Your task to perform on an android device: open chrome and create a bookmark for the current page Image 0: 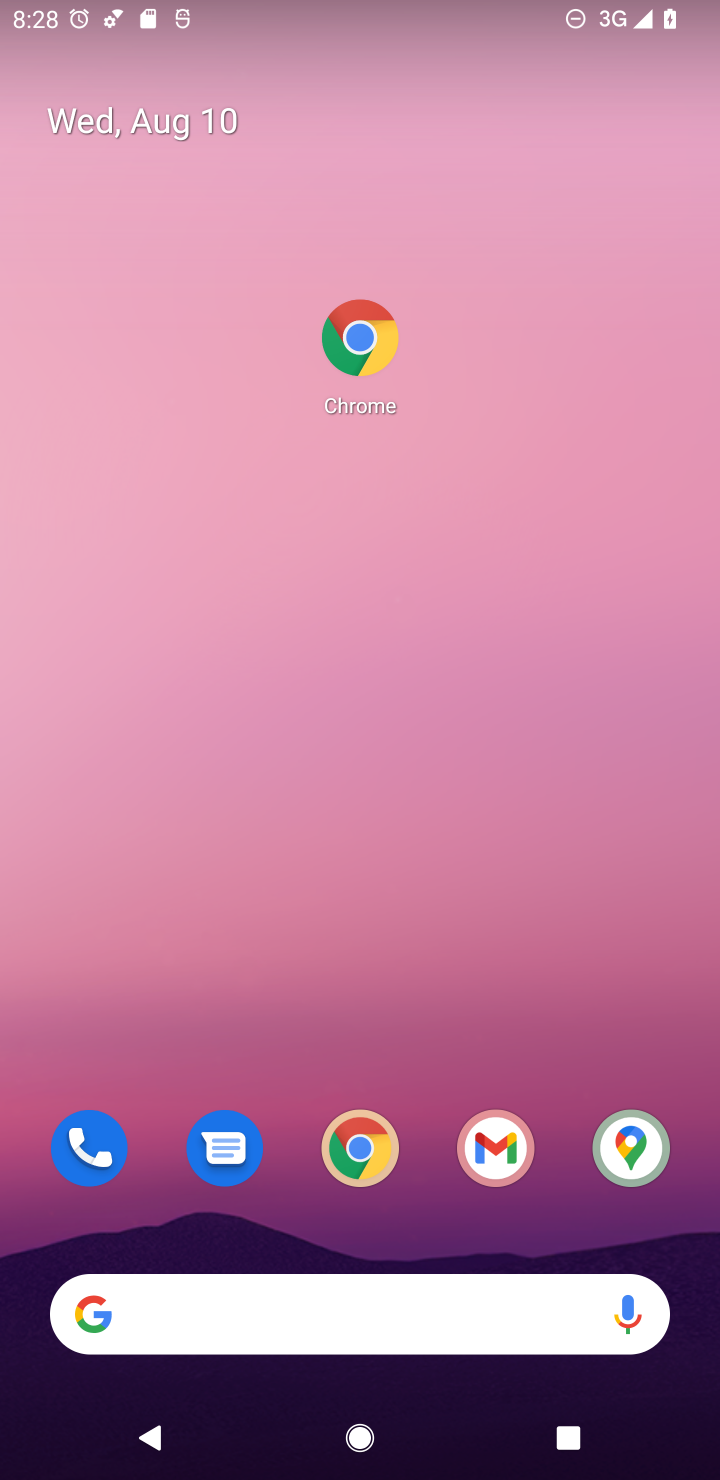
Step 0: click (354, 323)
Your task to perform on an android device: open chrome and create a bookmark for the current page Image 1: 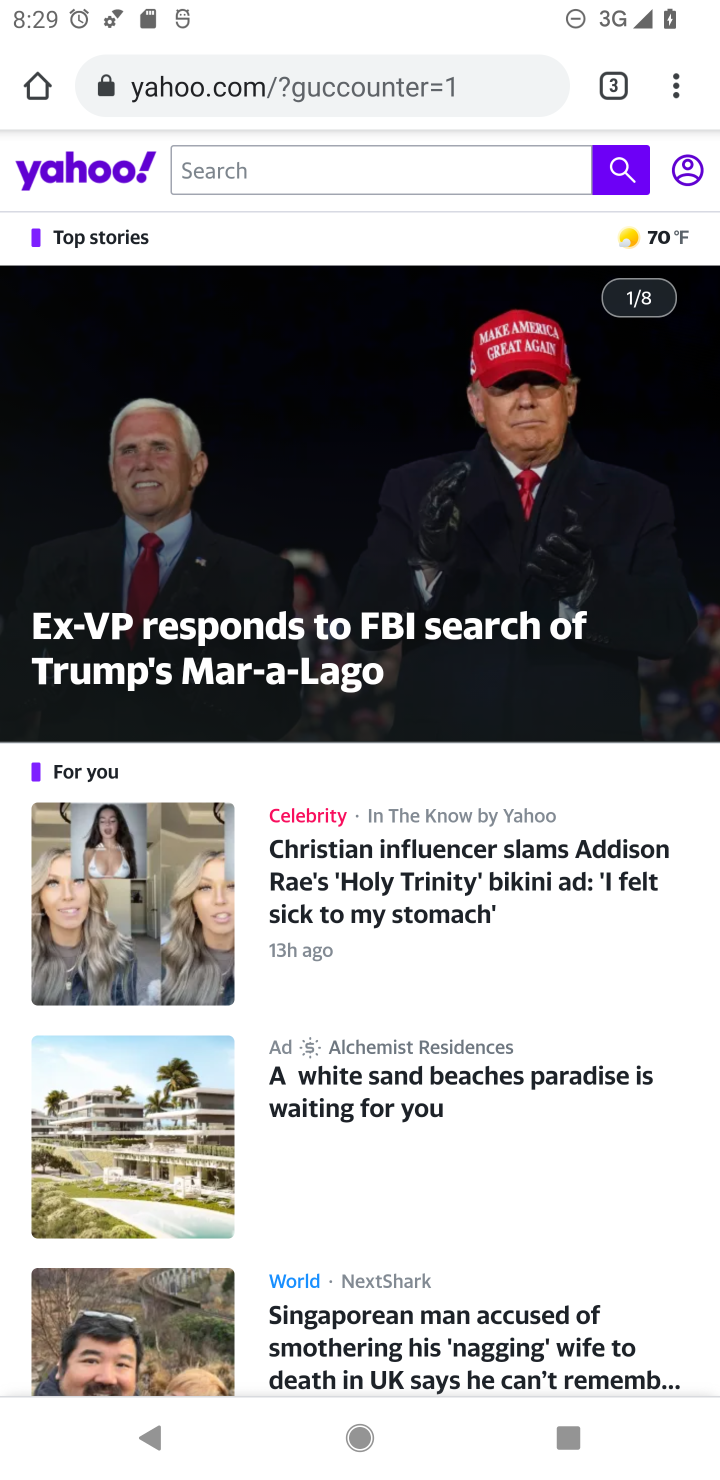
Step 1: click (661, 79)
Your task to perform on an android device: open chrome and create a bookmark for the current page Image 2: 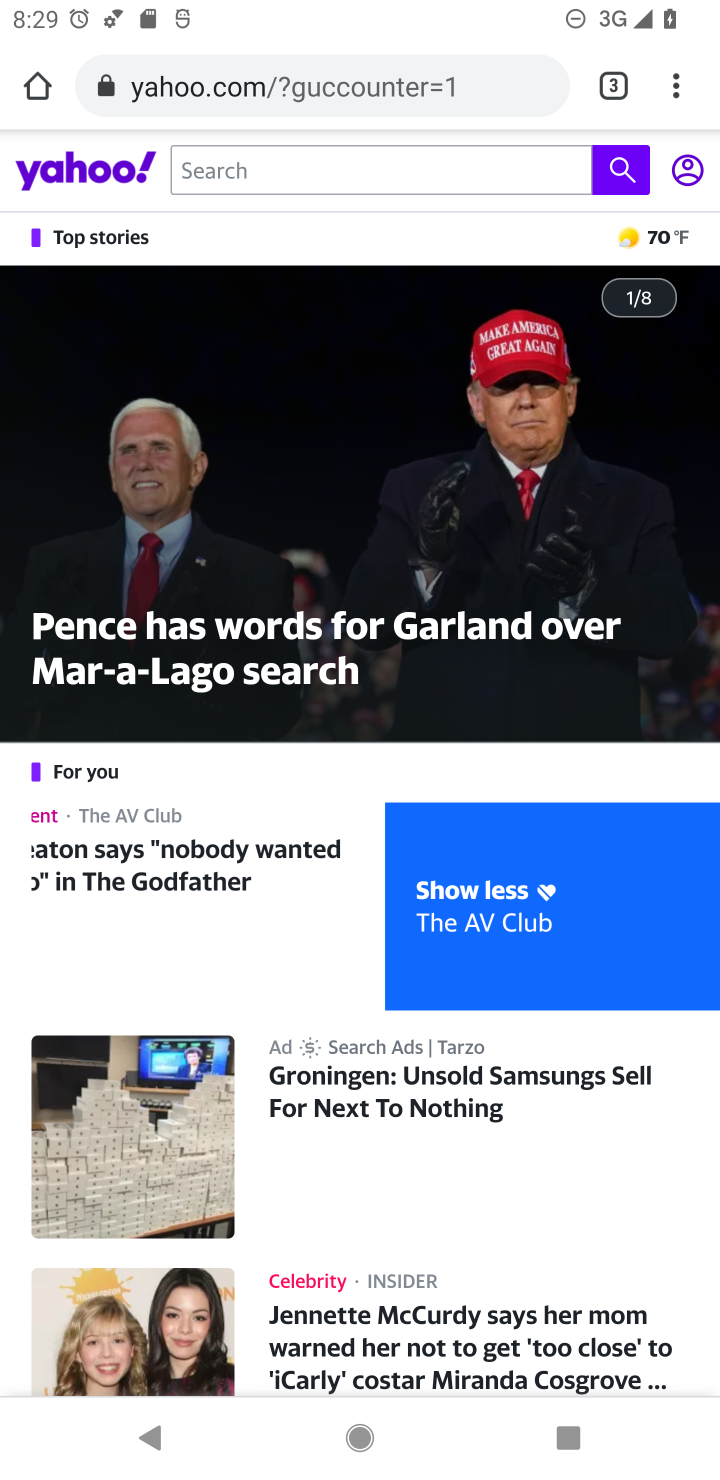
Step 2: click (676, 79)
Your task to perform on an android device: open chrome and create a bookmark for the current page Image 3: 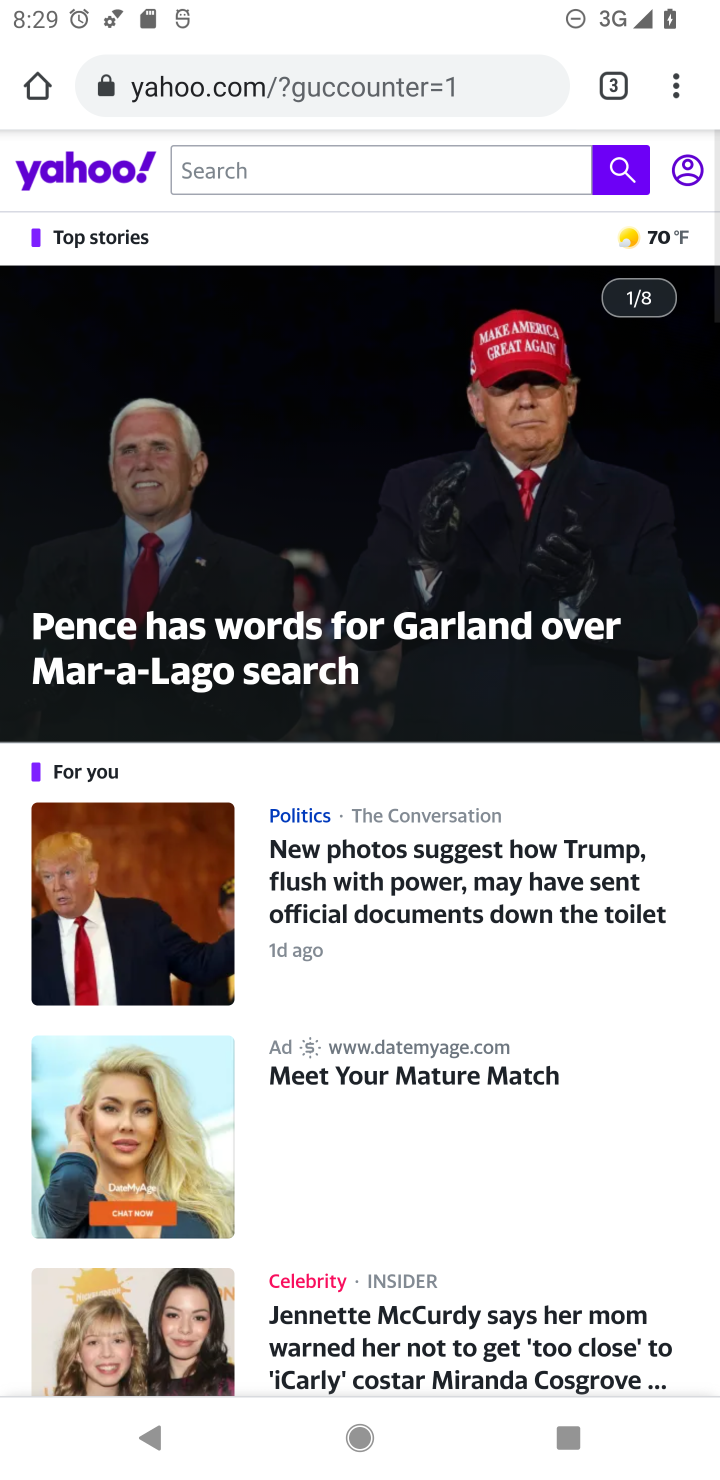
Step 3: click (676, 79)
Your task to perform on an android device: open chrome and create a bookmark for the current page Image 4: 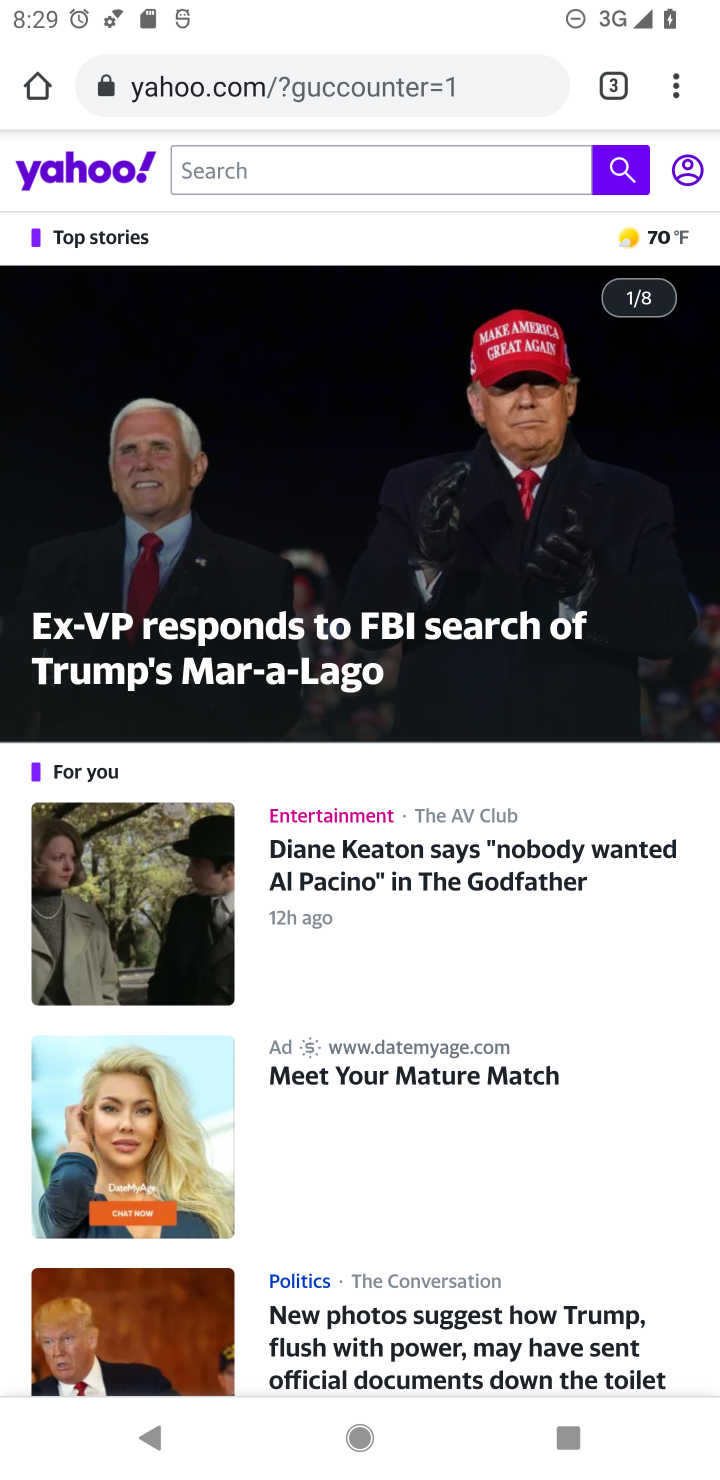
Step 4: click (676, 79)
Your task to perform on an android device: open chrome and create a bookmark for the current page Image 5: 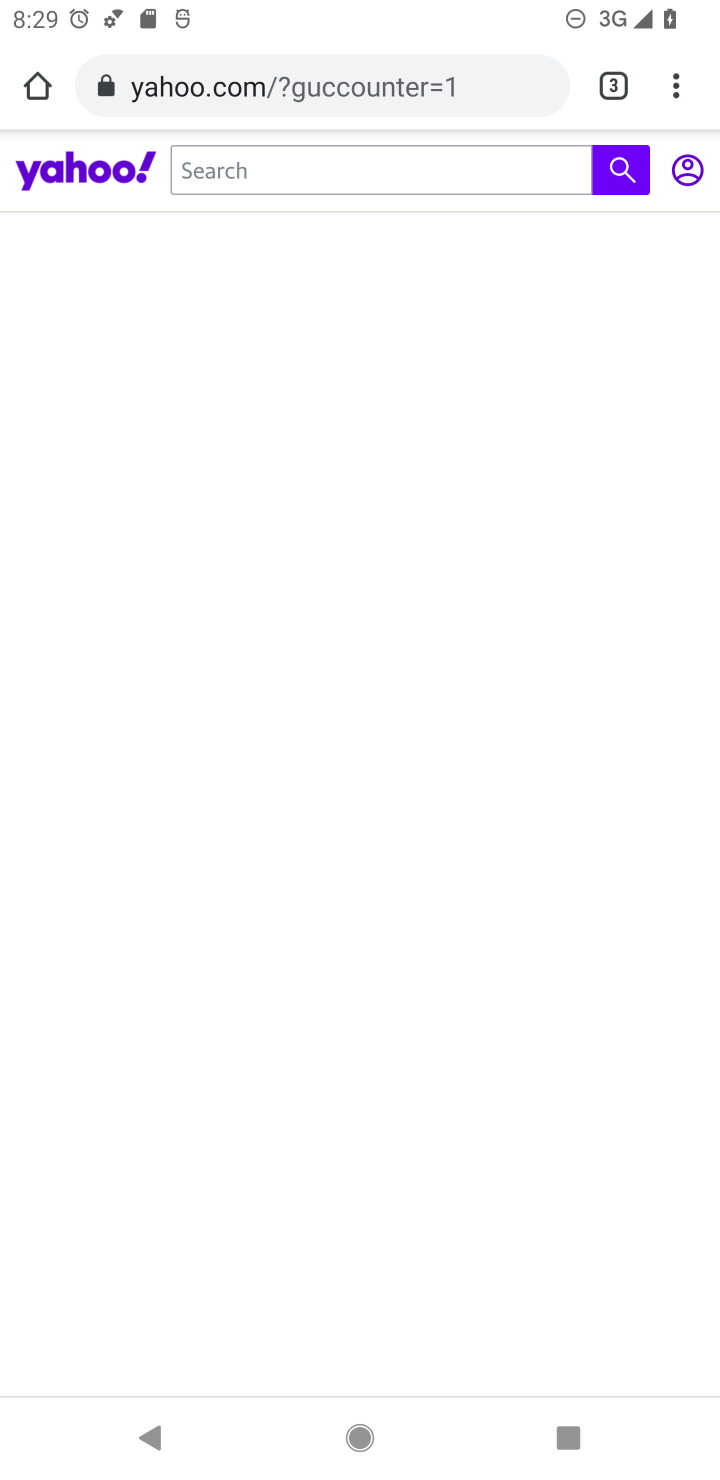
Step 5: click (676, 79)
Your task to perform on an android device: open chrome and create a bookmark for the current page Image 6: 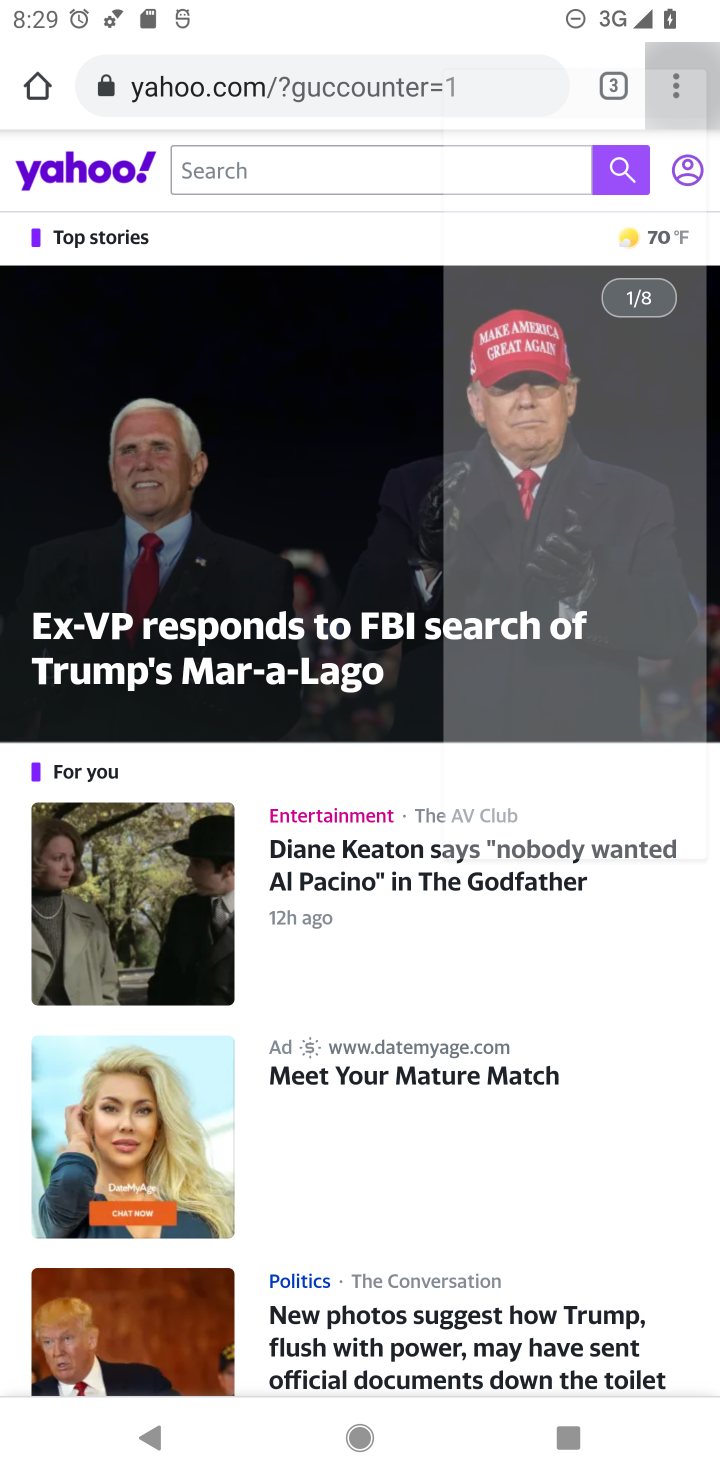
Step 6: click (676, 79)
Your task to perform on an android device: open chrome and create a bookmark for the current page Image 7: 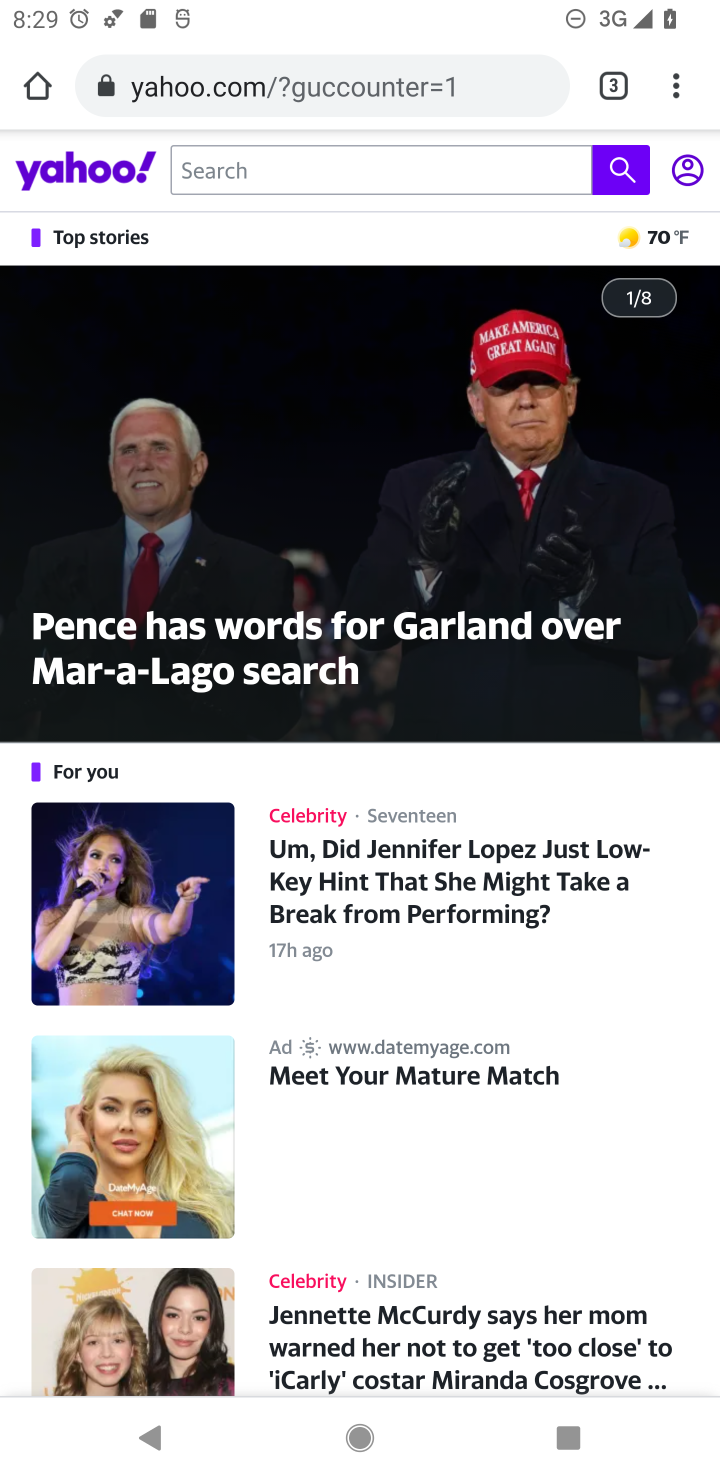
Step 7: click (676, 79)
Your task to perform on an android device: open chrome and create a bookmark for the current page Image 8: 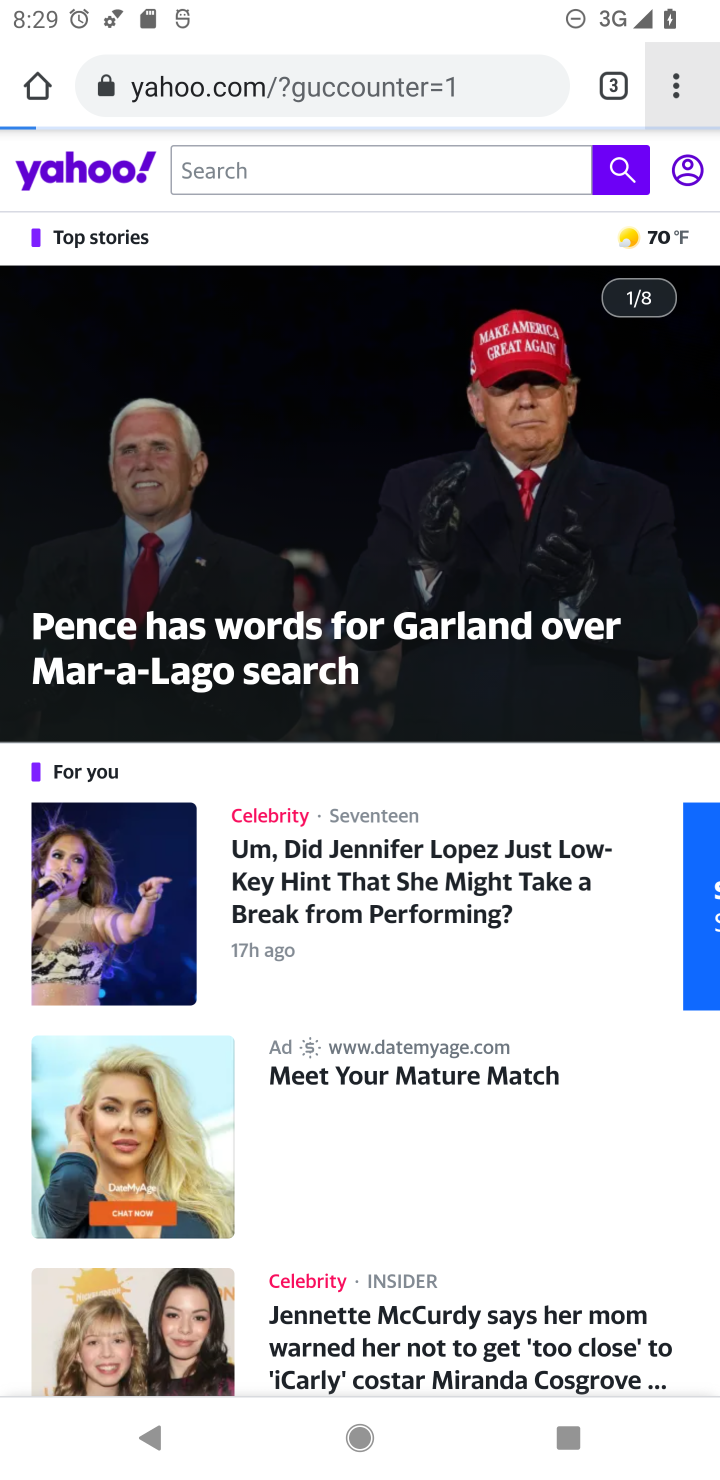
Step 8: click (676, 79)
Your task to perform on an android device: open chrome and create a bookmark for the current page Image 9: 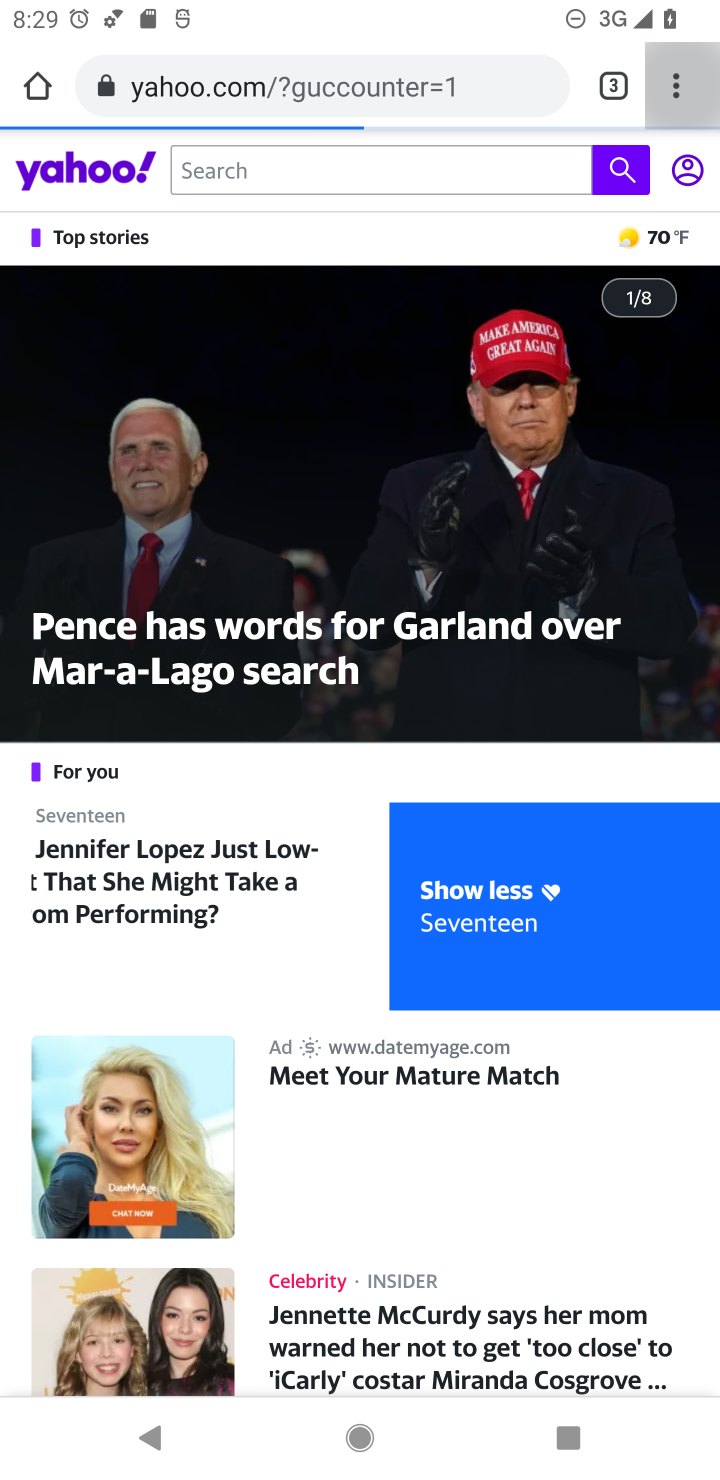
Step 9: click (676, 79)
Your task to perform on an android device: open chrome and create a bookmark for the current page Image 10: 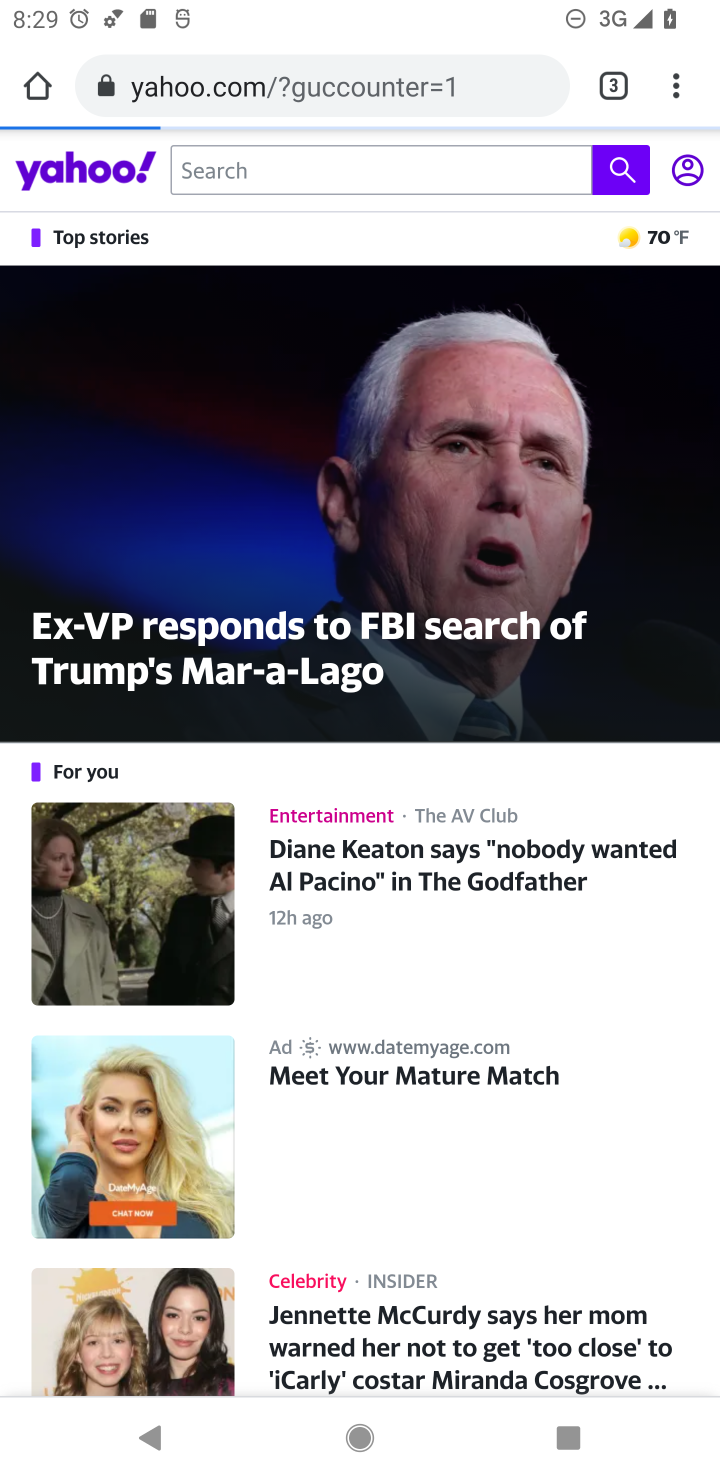
Step 10: click (676, 79)
Your task to perform on an android device: open chrome and create a bookmark for the current page Image 11: 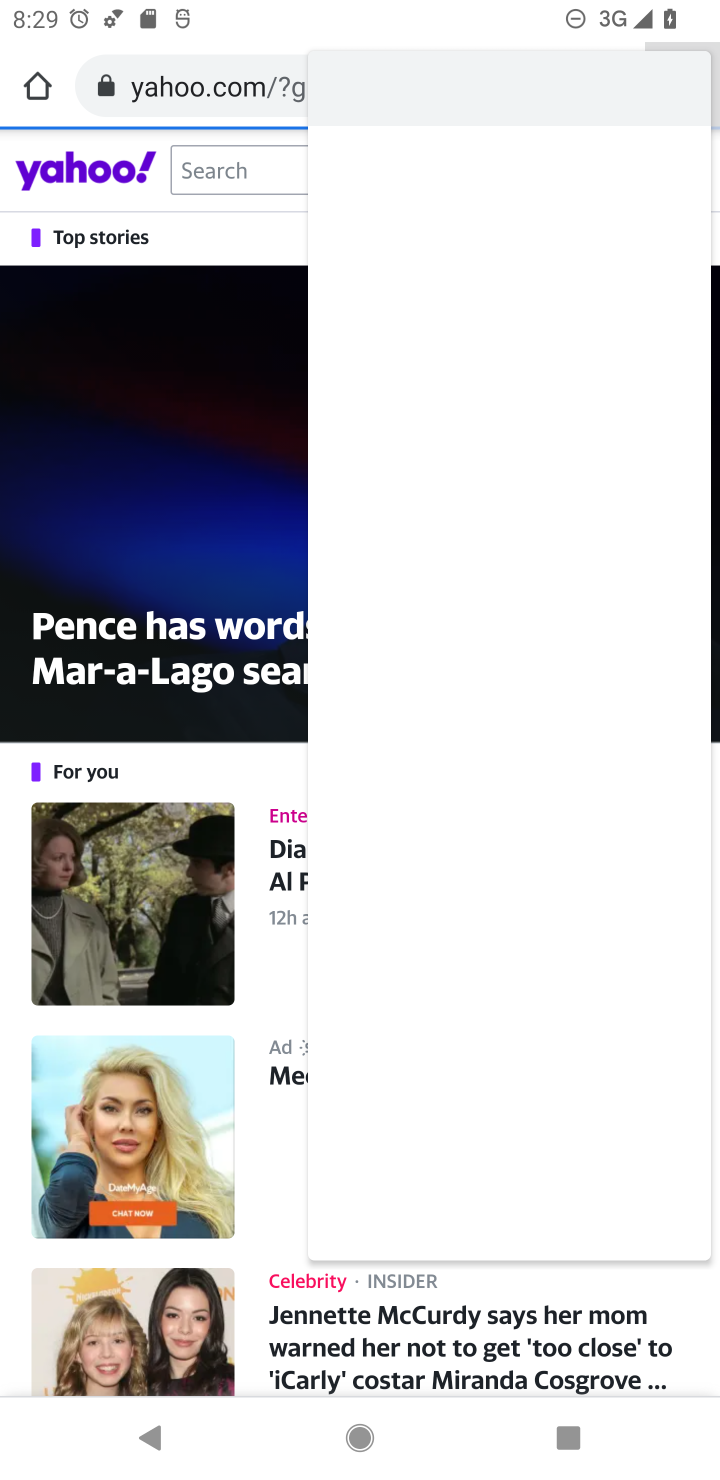
Step 11: click (676, 79)
Your task to perform on an android device: open chrome and create a bookmark for the current page Image 12: 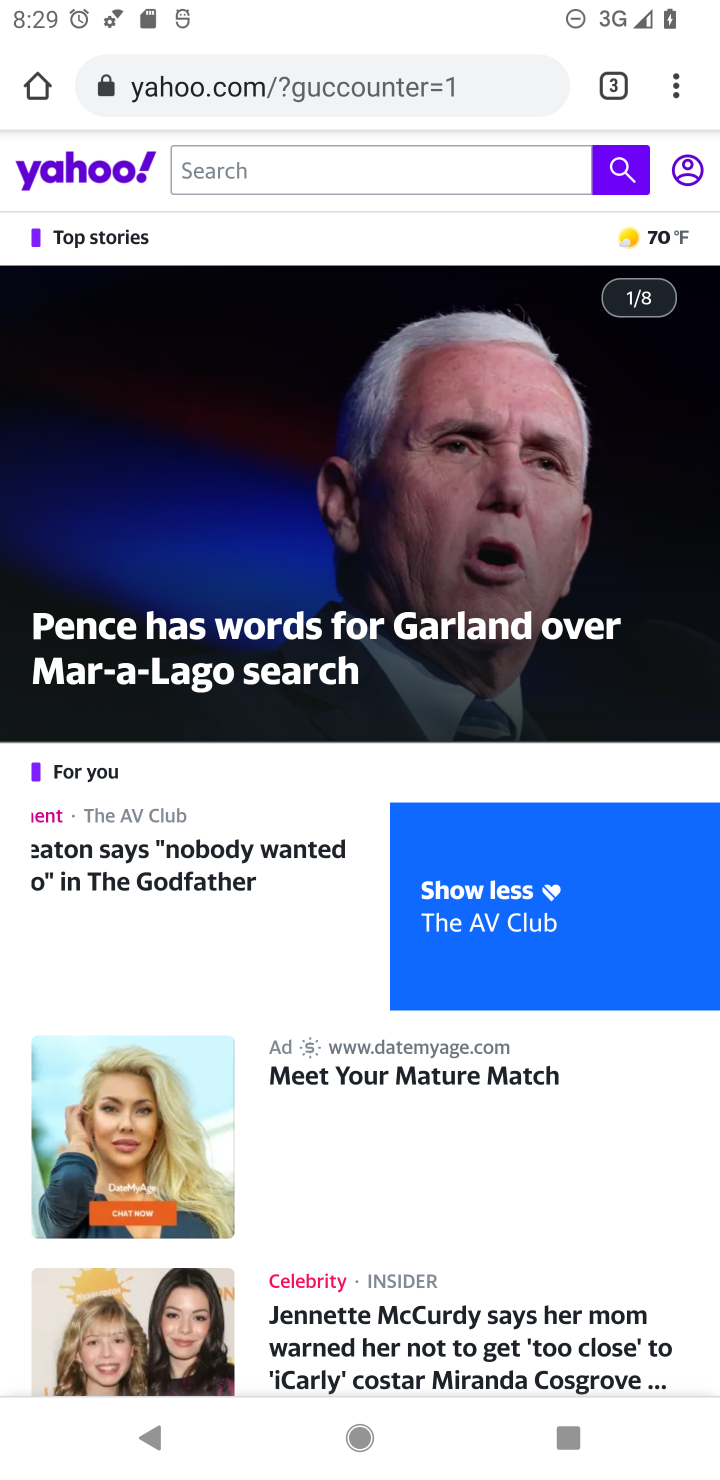
Step 12: click (676, 79)
Your task to perform on an android device: open chrome and create a bookmark for the current page Image 13: 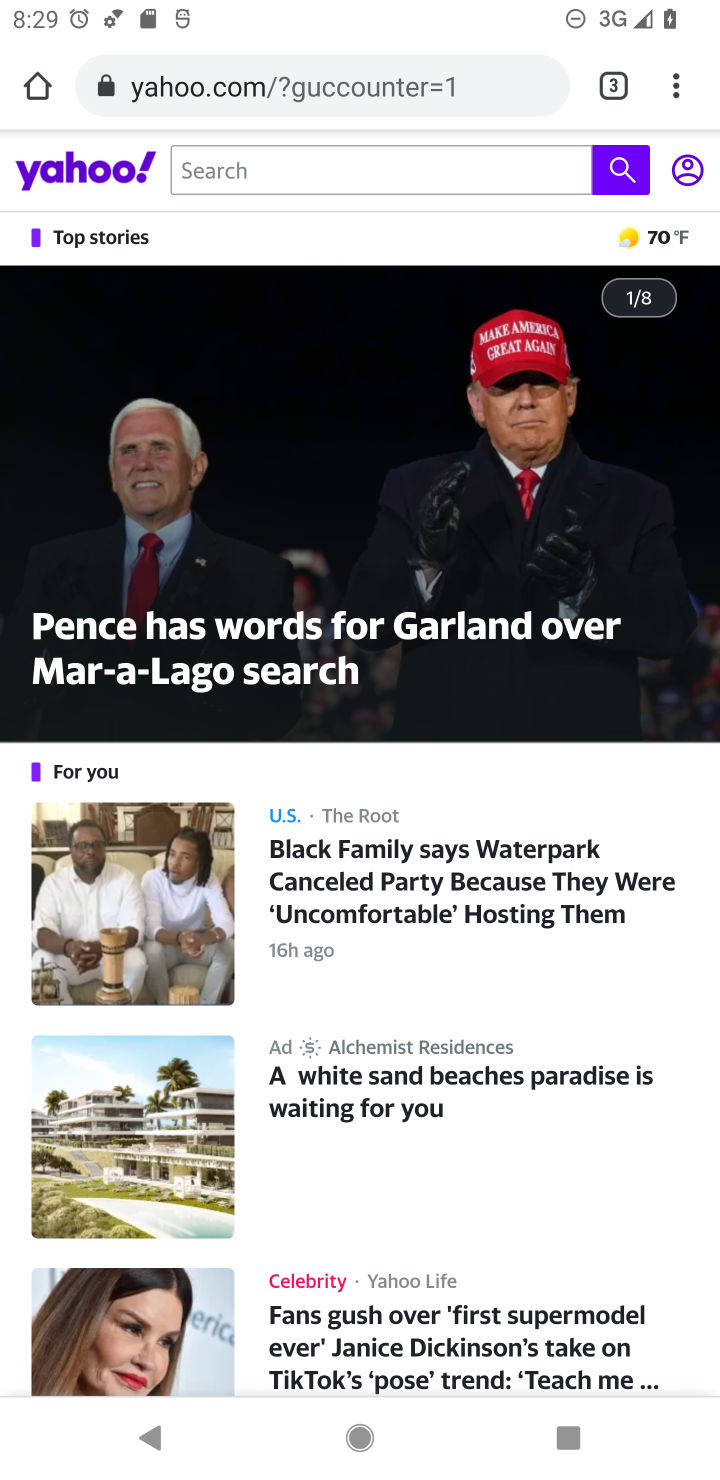
Step 13: click (676, 79)
Your task to perform on an android device: open chrome and create a bookmark for the current page Image 14: 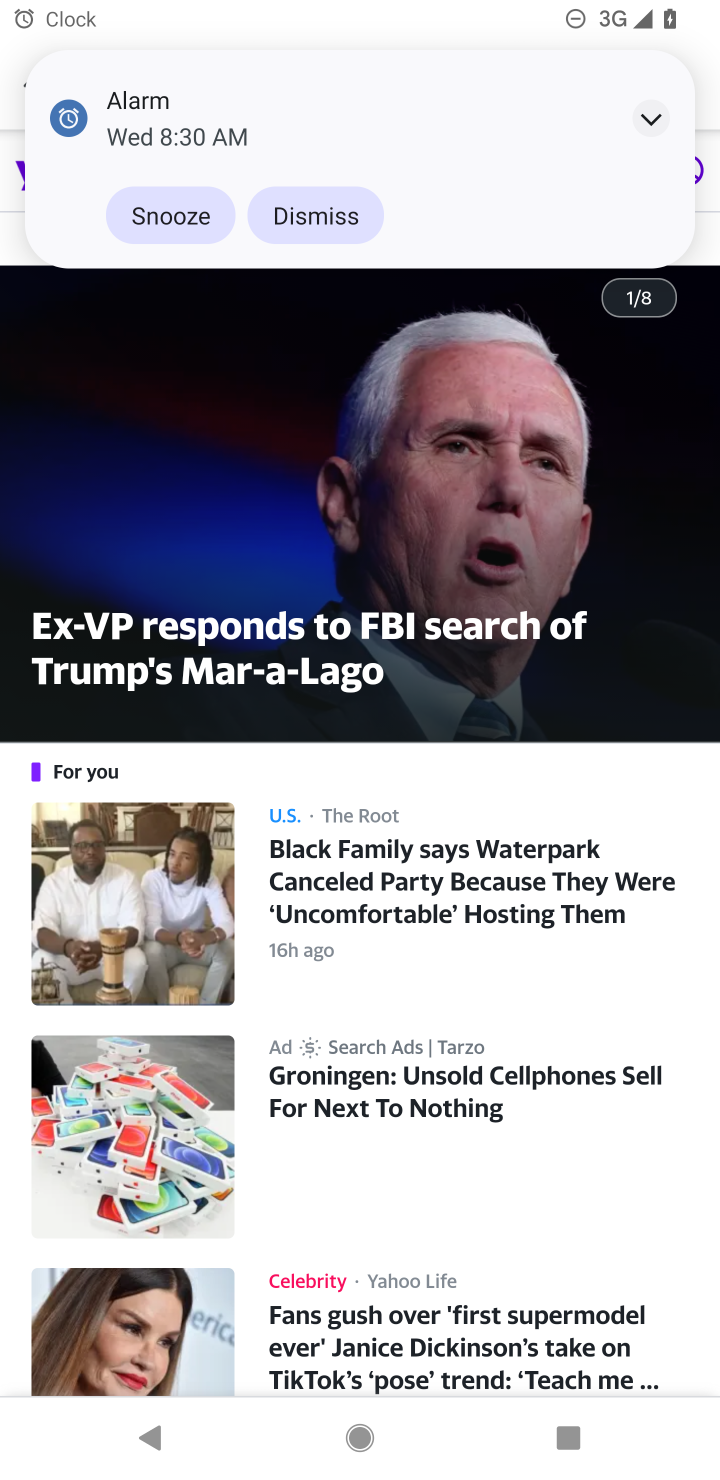
Step 14: task complete